Your task to perform on an android device: Go to battery settings Image 0: 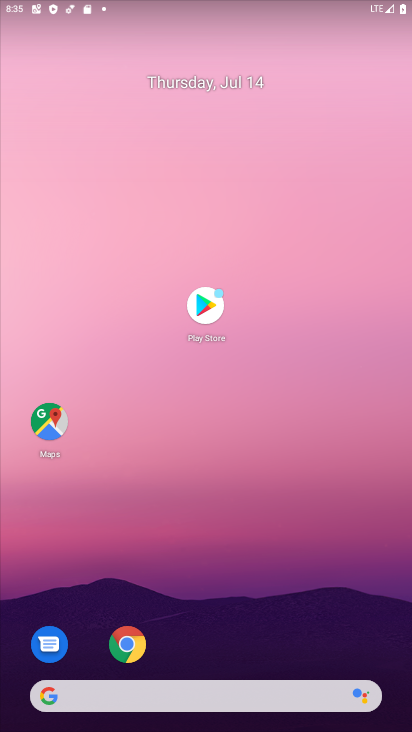
Step 0: drag from (209, 640) to (286, 0)
Your task to perform on an android device: Go to battery settings Image 1: 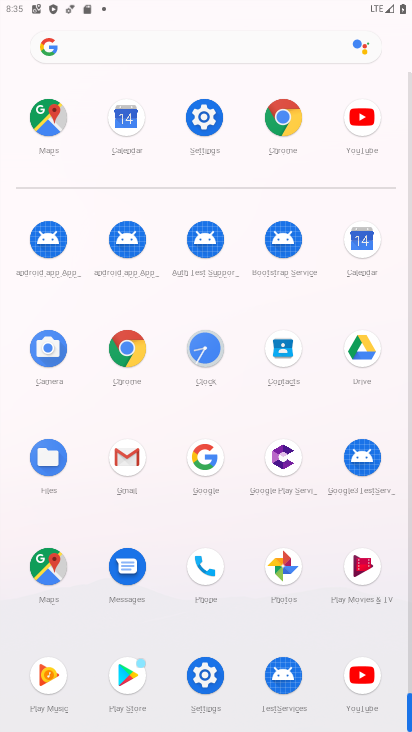
Step 1: click (206, 114)
Your task to perform on an android device: Go to battery settings Image 2: 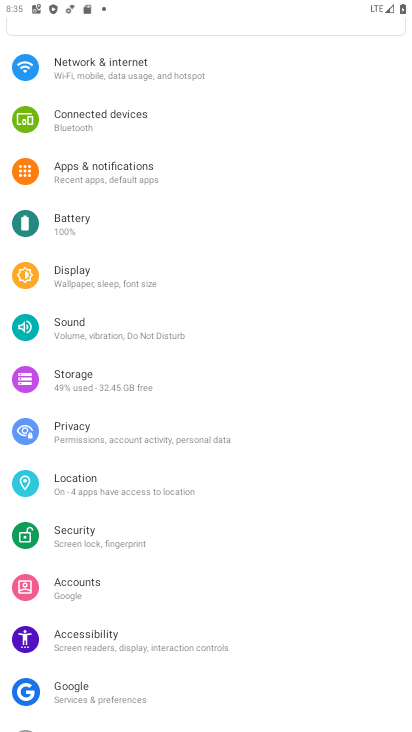
Step 2: click (110, 227)
Your task to perform on an android device: Go to battery settings Image 3: 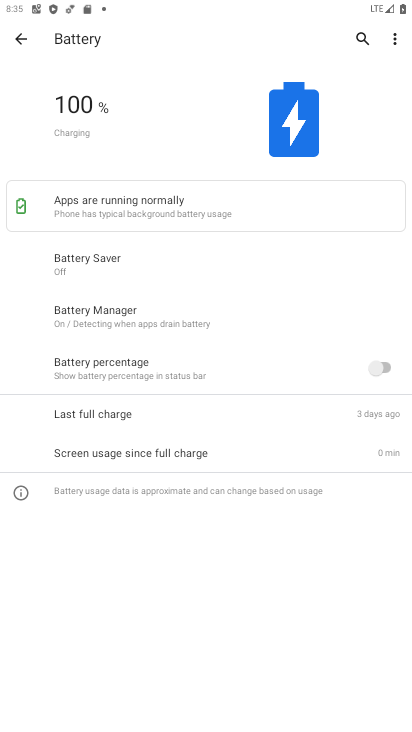
Step 3: task complete